Your task to perform on an android device: delete location history Image 0: 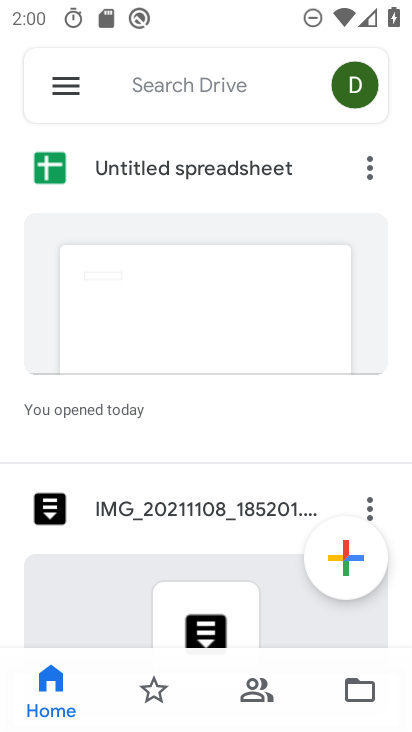
Step 0: press home button
Your task to perform on an android device: delete location history Image 1: 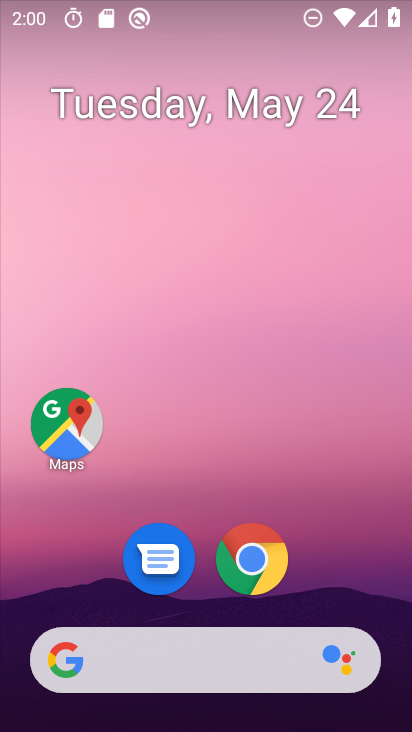
Step 1: drag from (402, 684) to (332, 277)
Your task to perform on an android device: delete location history Image 2: 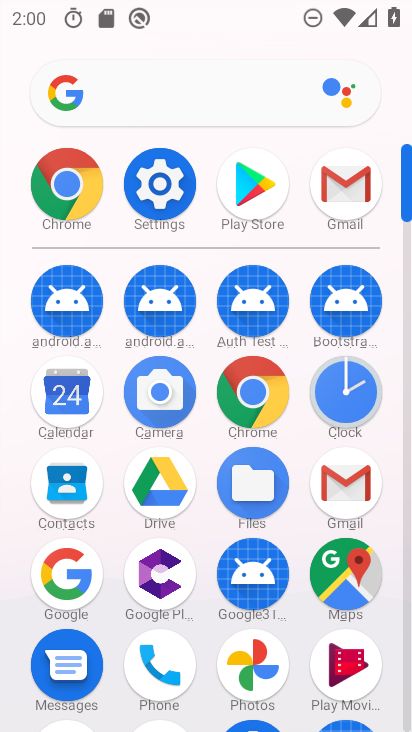
Step 2: click (351, 565)
Your task to perform on an android device: delete location history Image 3: 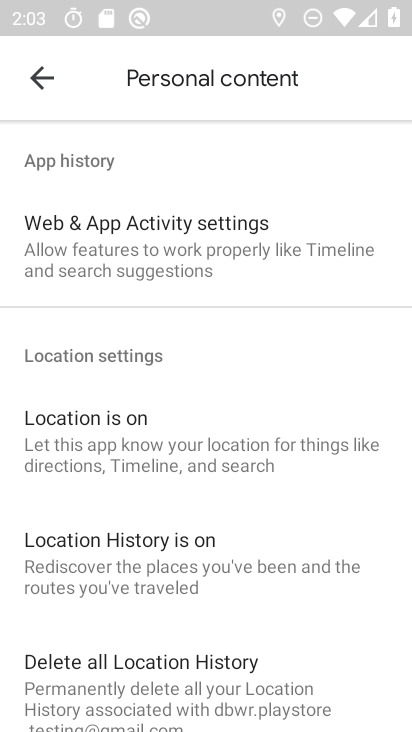
Step 3: click (156, 680)
Your task to perform on an android device: delete location history Image 4: 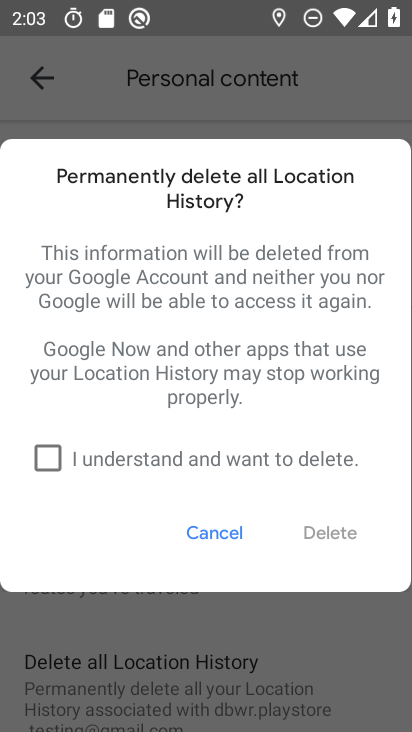
Step 4: click (49, 454)
Your task to perform on an android device: delete location history Image 5: 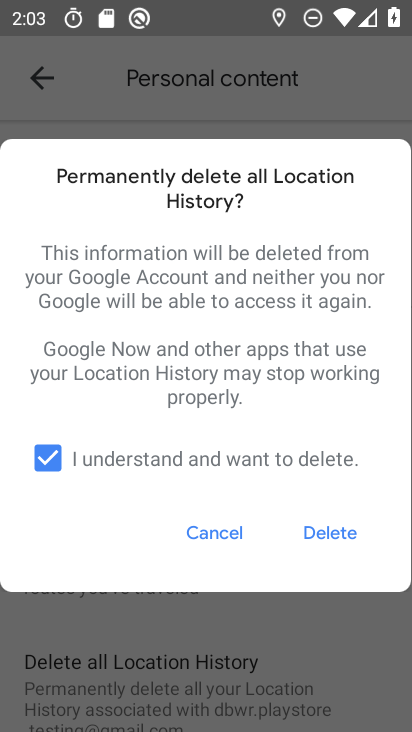
Step 5: click (319, 531)
Your task to perform on an android device: delete location history Image 6: 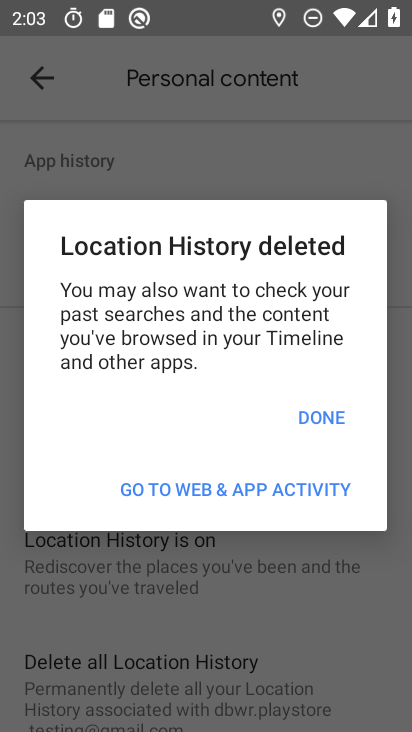
Step 6: click (319, 414)
Your task to perform on an android device: delete location history Image 7: 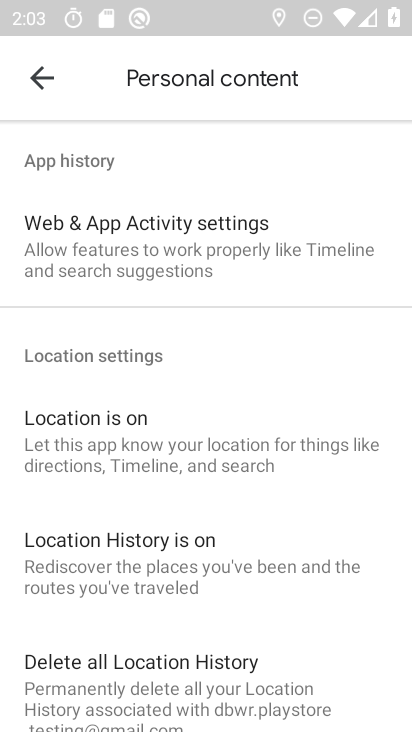
Step 7: task complete